Your task to perform on an android device: turn pop-ups off in chrome Image 0: 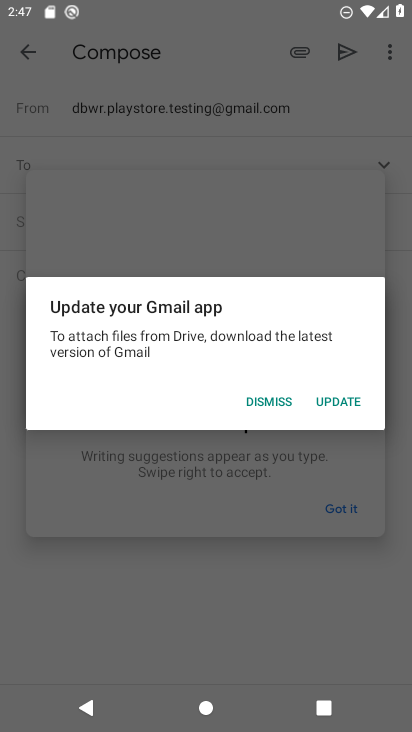
Step 0: press home button
Your task to perform on an android device: turn pop-ups off in chrome Image 1: 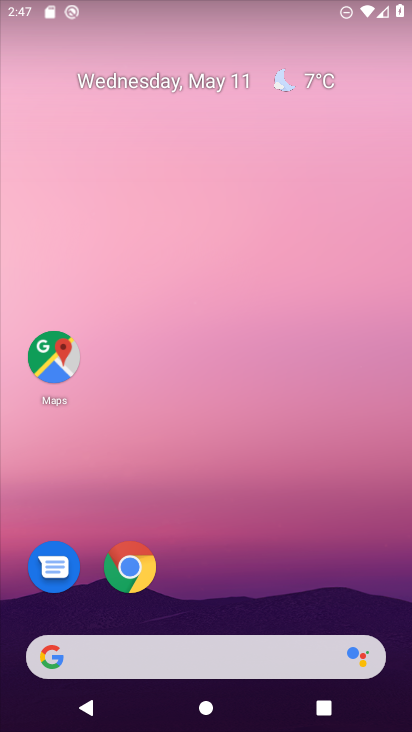
Step 1: click (139, 570)
Your task to perform on an android device: turn pop-ups off in chrome Image 2: 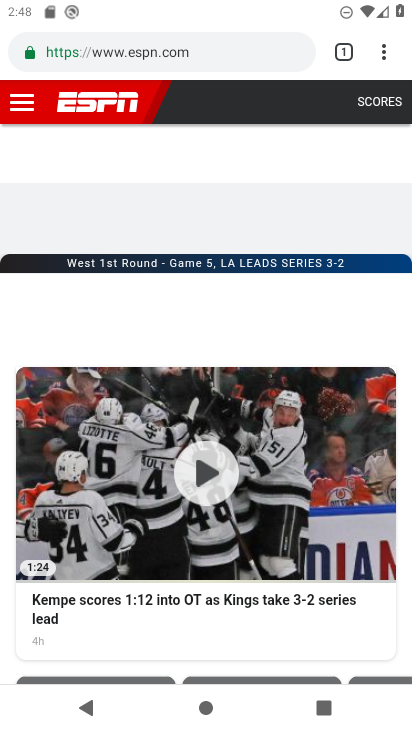
Step 2: click (392, 56)
Your task to perform on an android device: turn pop-ups off in chrome Image 3: 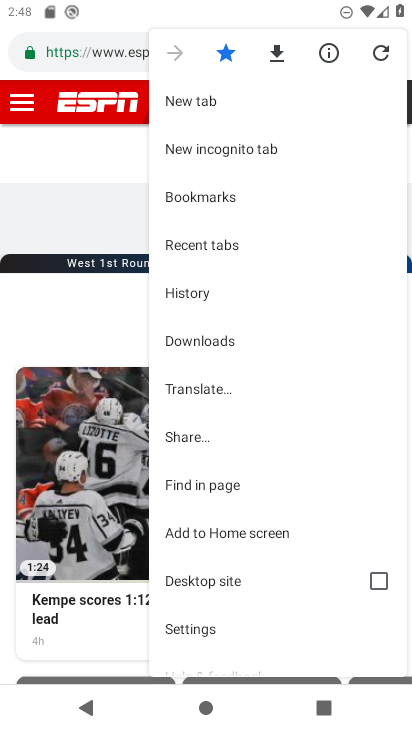
Step 3: click (236, 625)
Your task to perform on an android device: turn pop-ups off in chrome Image 4: 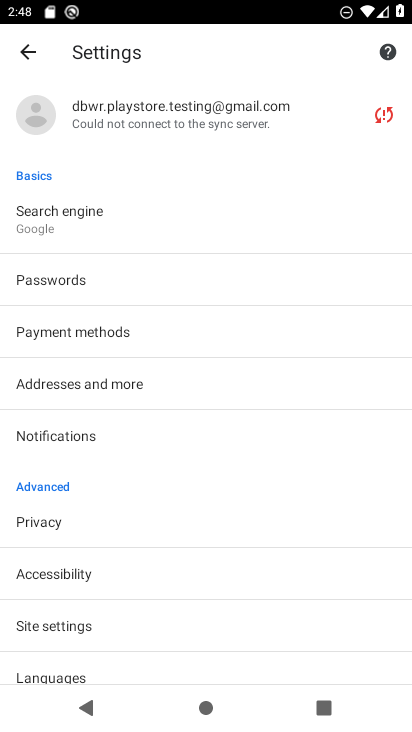
Step 4: click (81, 624)
Your task to perform on an android device: turn pop-ups off in chrome Image 5: 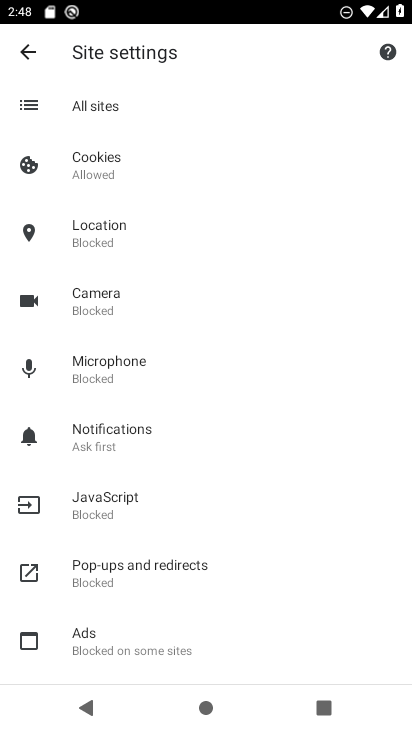
Step 5: click (156, 573)
Your task to perform on an android device: turn pop-ups off in chrome Image 6: 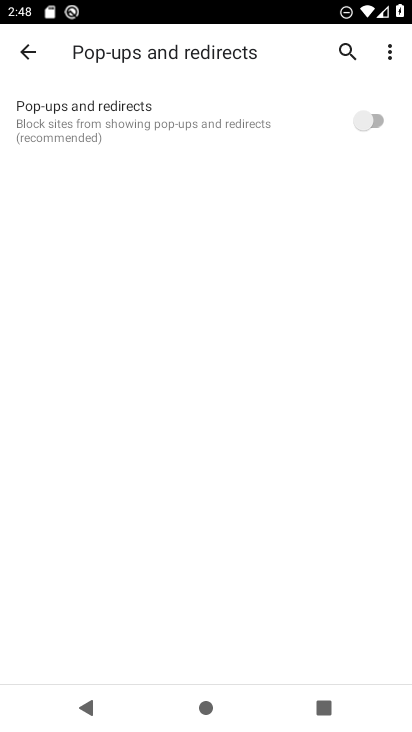
Step 6: task complete